Your task to perform on an android device: What is the news today? Image 0: 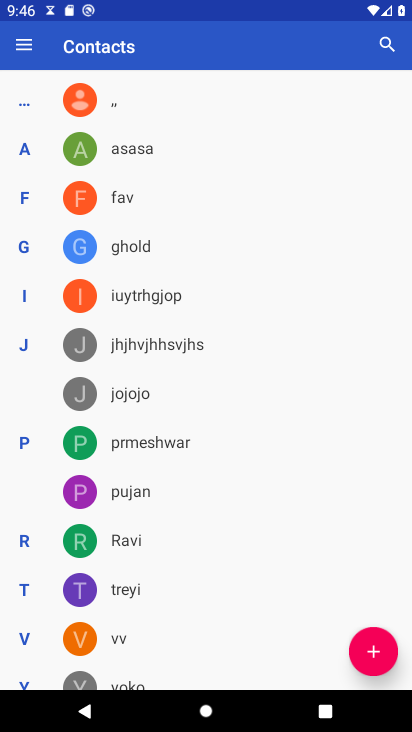
Step 0: press home button
Your task to perform on an android device: What is the news today? Image 1: 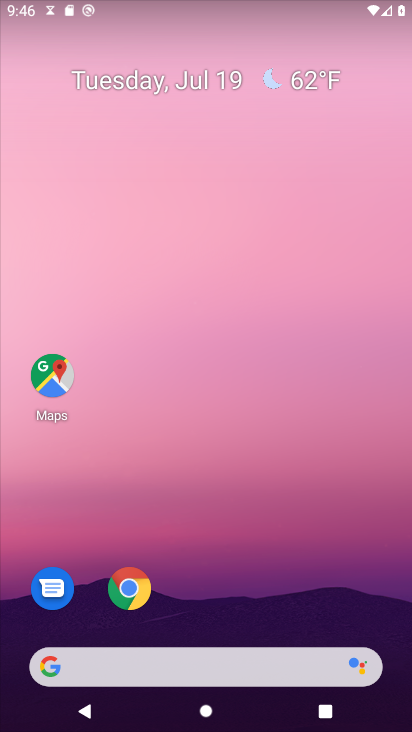
Step 1: drag from (196, 612) to (241, 75)
Your task to perform on an android device: What is the news today? Image 2: 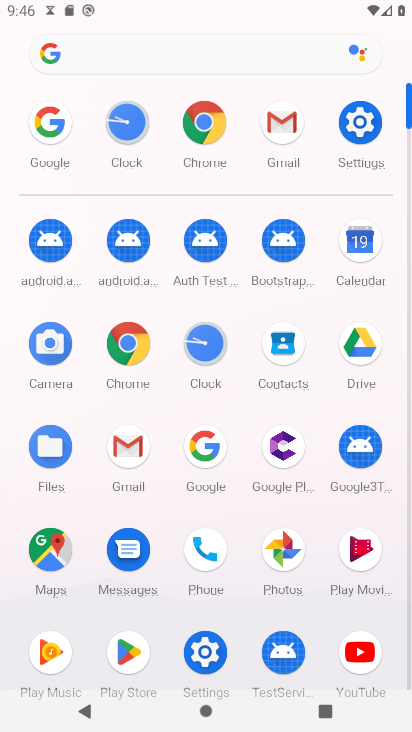
Step 2: click (55, 132)
Your task to perform on an android device: What is the news today? Image 3: 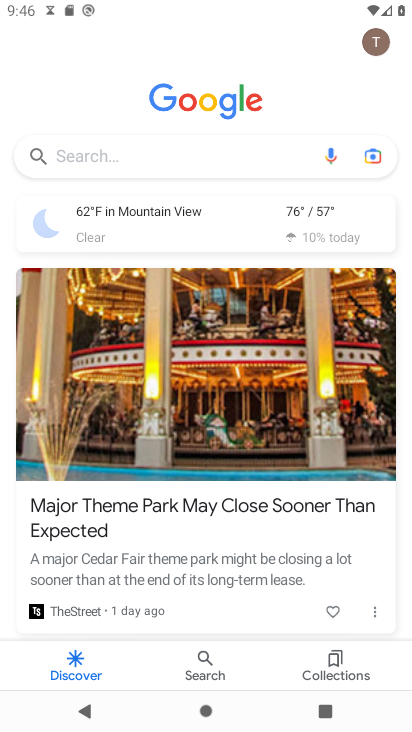
Step 3: click (137, 158)
Your task to perform on an android device: What is the news today? Image 4: 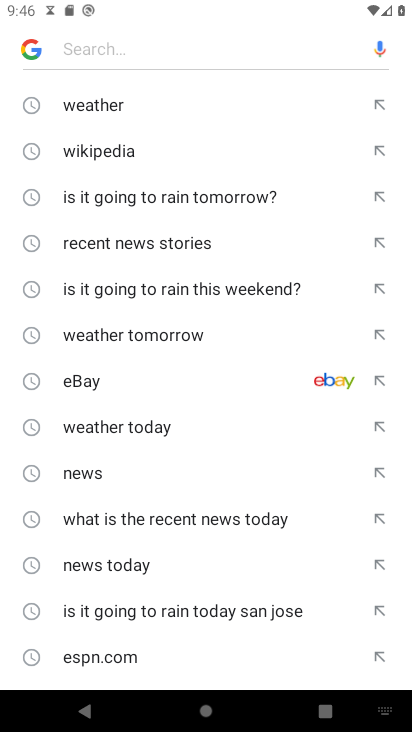
Step 4: click (102, 569)
Your task to perform on an android device: What is the news today? Image 5: 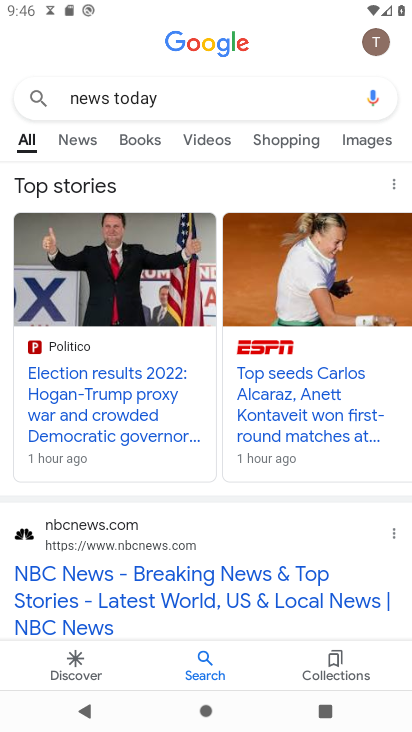
Step 5: task complete